Your task to perform on an android device: turn on location history Image 0: 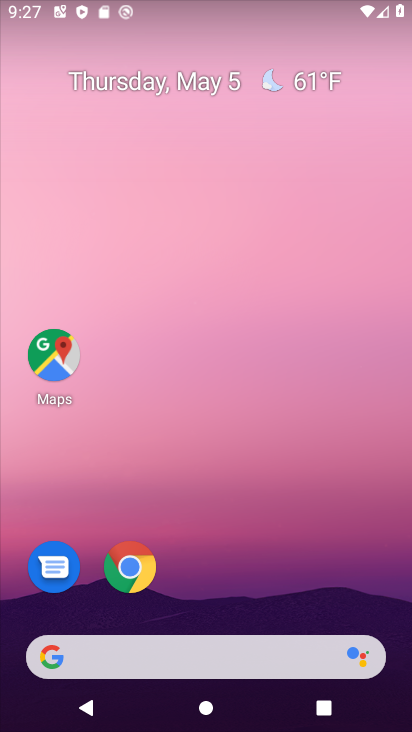
Step 0: drag from (319, 601) to (310, 188)
Your task to perform on an android device: turn on location history Image 1: 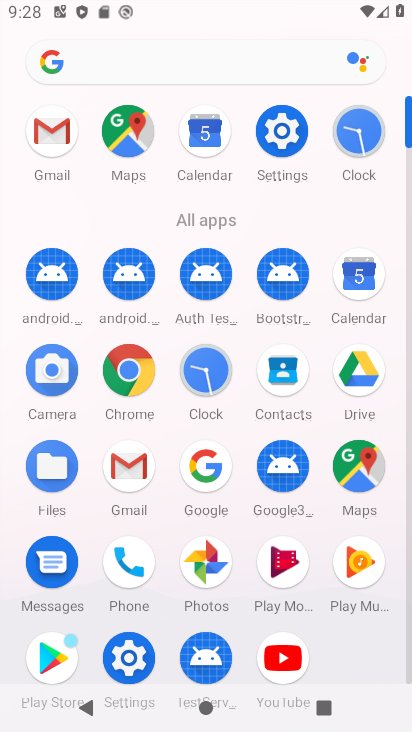
Step 1: click (289, 145)
Your task to perform on an android device: turn on location history Image 2: 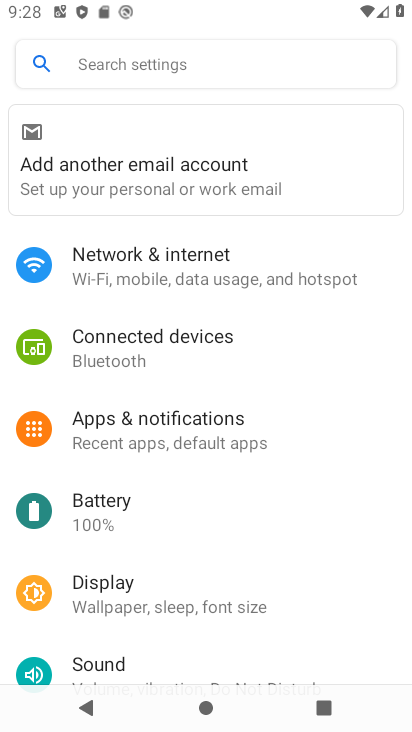
Step 2: drag from (155, 632) to (173, 291)
Your task to perform on an android device: turn on location history Image 3: 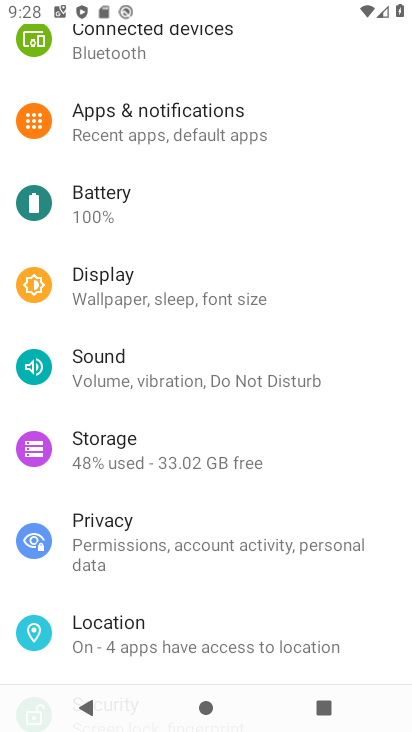
Step 3: click (178, 638)
Your task to perform on an android device: turn on location history Image 4: 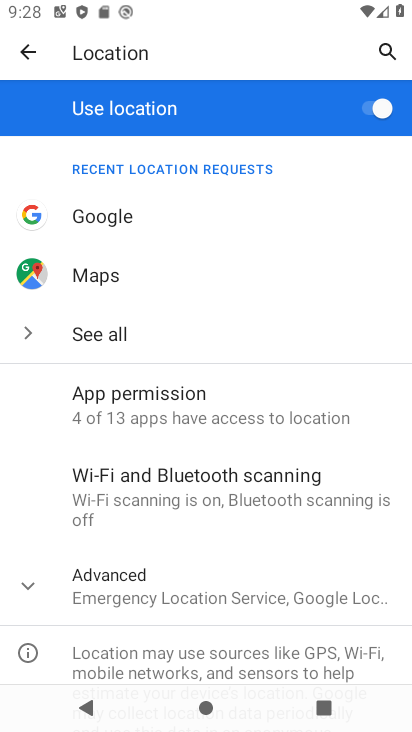
Step 4: click (231, 597)
Your task to perform on an android device: turn on location history Image 5: 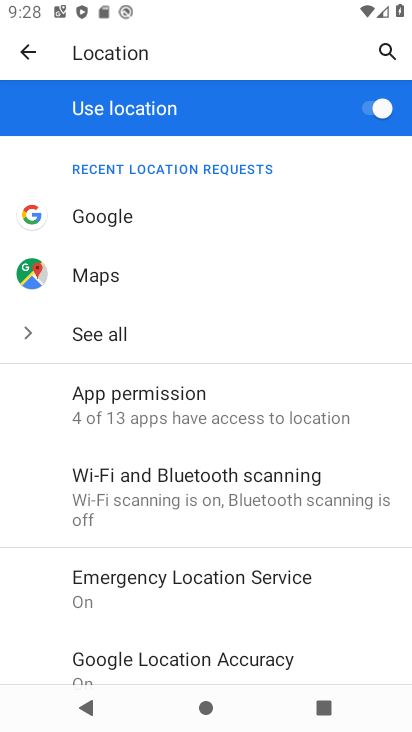
Step 5: drag from (275, 636) to (294, 404)
Your task to perform on an android device: turn on location history Image 6: 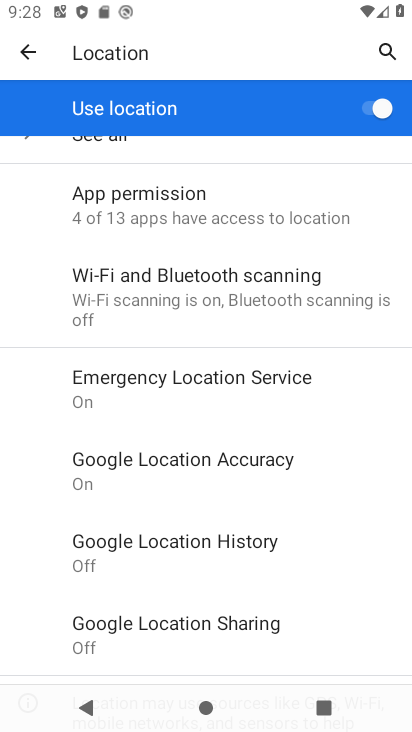
Step 6: click (279, 545)
Your task to perform on an android device: turn on location history Image 7: 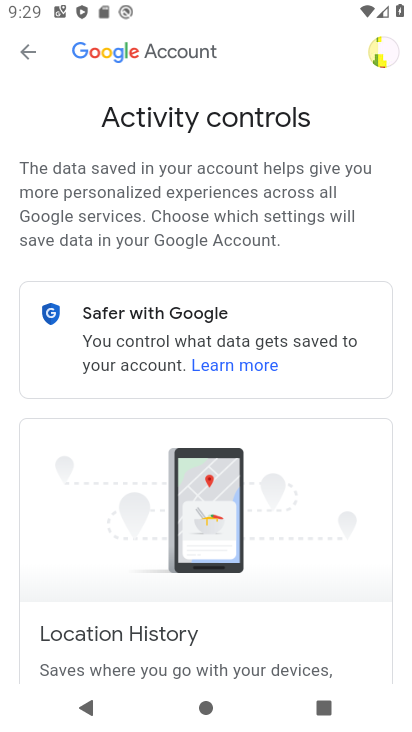
Step 7: task complete